Your task to perform on an android device: toggle sleep mode Image 0: 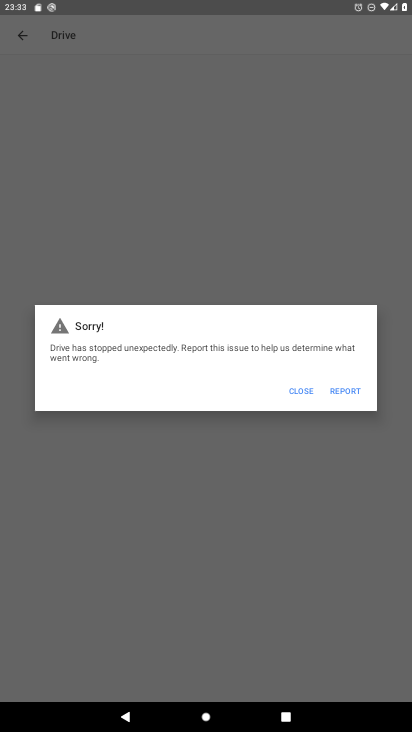
Step 0: press home button
Your task to perform on an android device: toggle sleep mode Image 1: 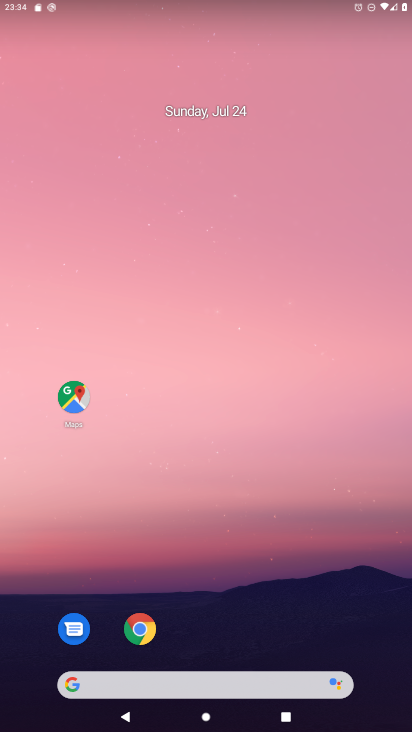
Step 1: drag from (186, 649) to (226, 64)
Your task to perform on an android device: toggle sleep mode Image 2: 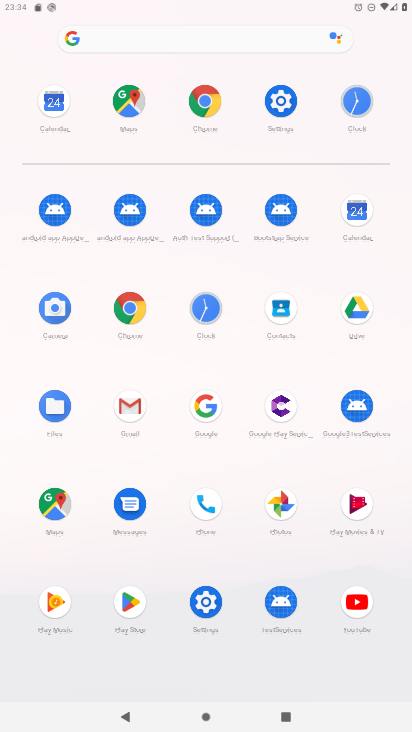
Step 2: click (268, 94)
Your task to perform on an android device: toggle sleep mode Image 3: 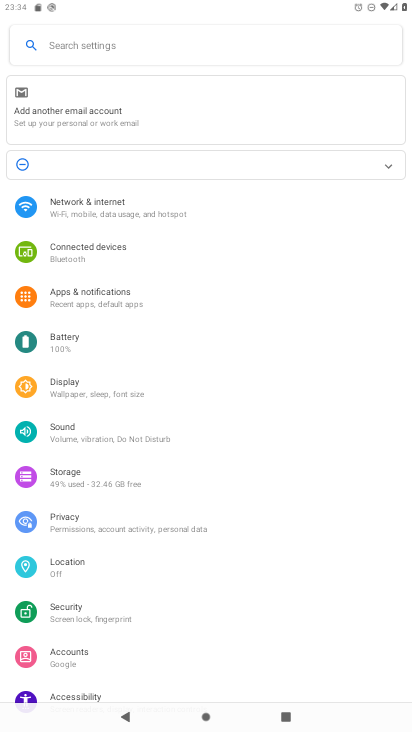
Step 3: click (102, 387)
Your task to perform on an android device: toggle sleep mode Image 4: 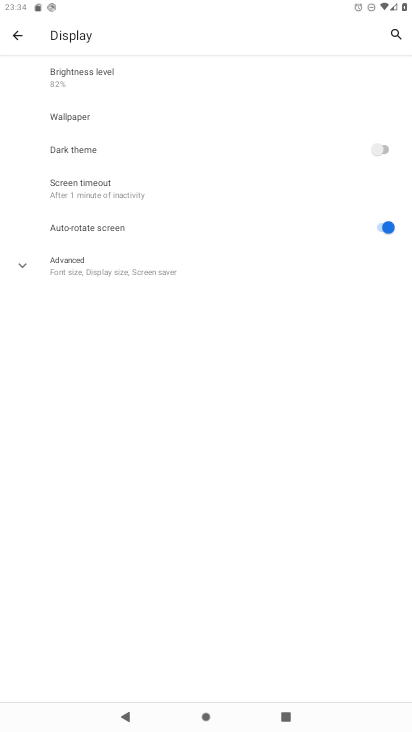
Step 4: click (173, 189)
Your task to perform on an android device: toggle sleep mode Image 5: 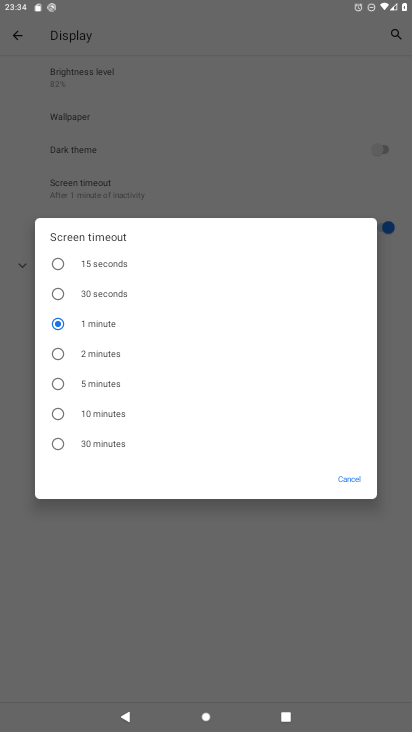
Step 5: click (69, 268)
Your task to perform on an android device: toggle sleep mode Image 6: 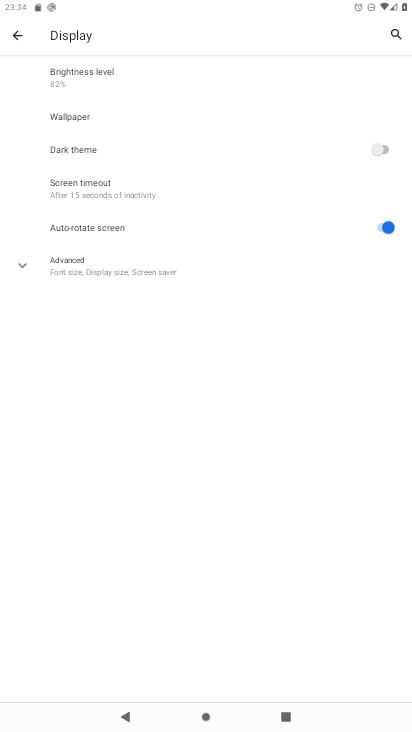
Step 6: click (98, 177)
Your task to perform on an android device: toggle sleep mode Image 7: 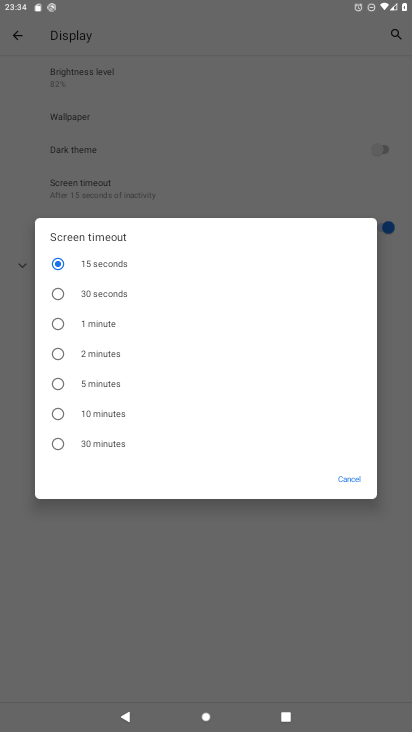
Step 7: task complete